Your task to perform on an android device: turn on showing notifications on the lock screen Image 0: 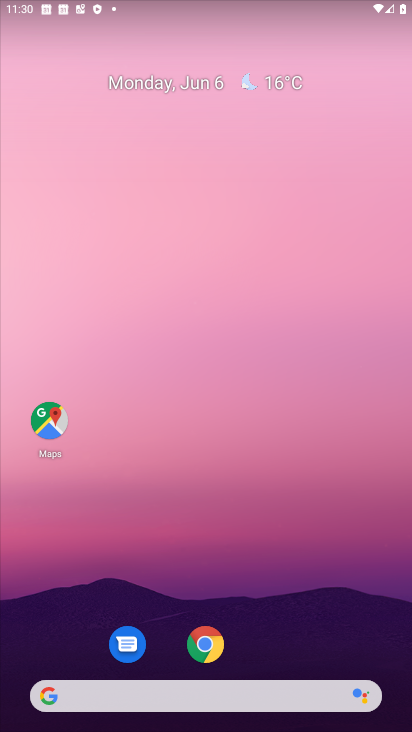
Step 0: drag from (309, 634) to (235, 248)
Your task to perform on an android device: turn on showing notifications on the lock screen Image 1: 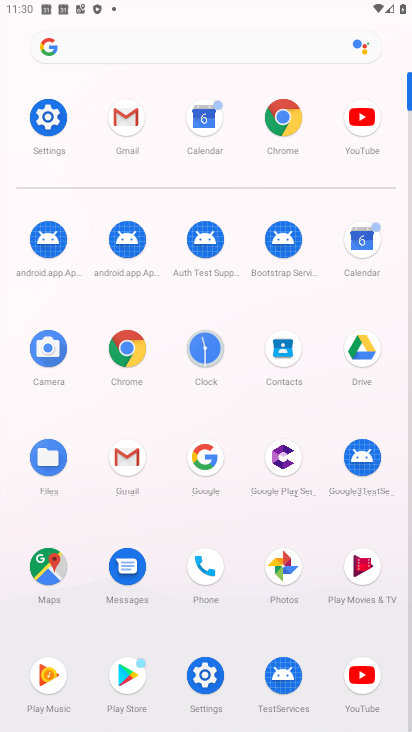
Step 1: click (46, 111)
Your task to perform on an android device: turn on showing notifications on the lock screen Image 2: 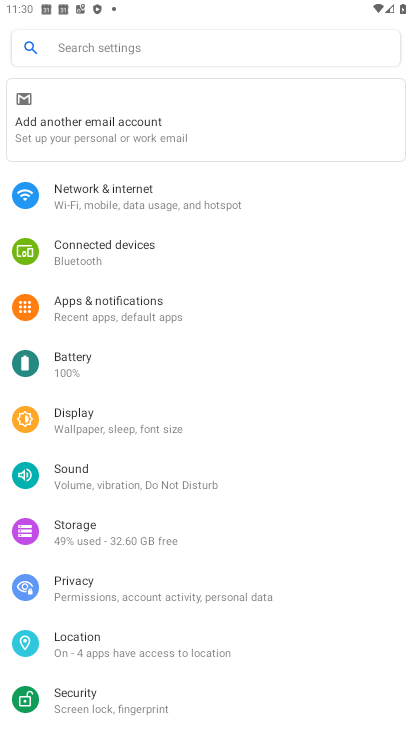
Step 2: click (156, 307)
Your task to perform on an android device: turn on showing notifications on the lock screen Image 3: 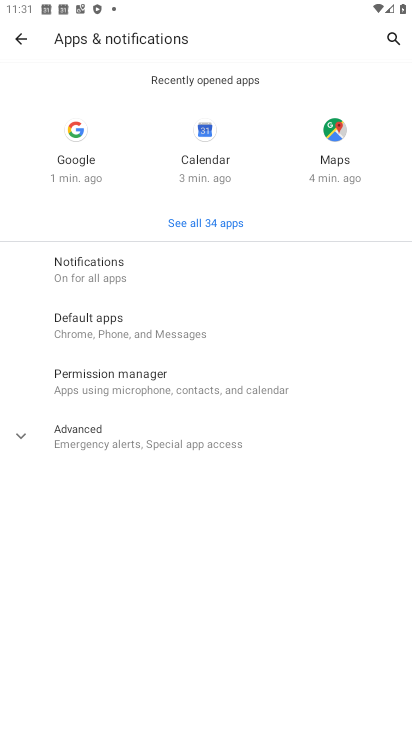
Step 3: click (142, 251)
Your task to perform on an android device: turn on showing notifications on the lock screen Image 4: 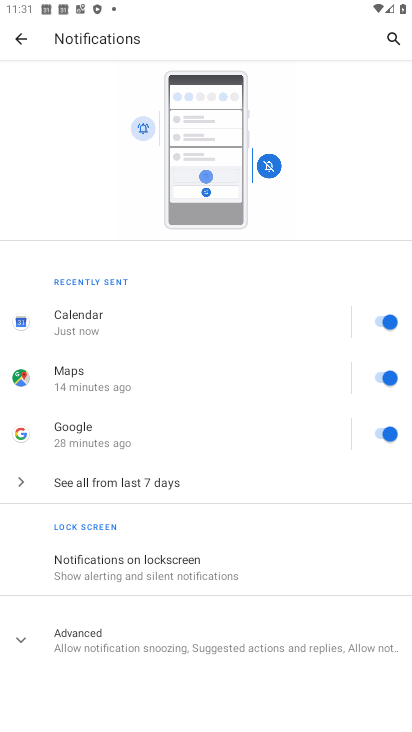
Step 4: click (241, 567)
Your task to perform on an android device: turn on showing notifications on the lock screen Image 5: 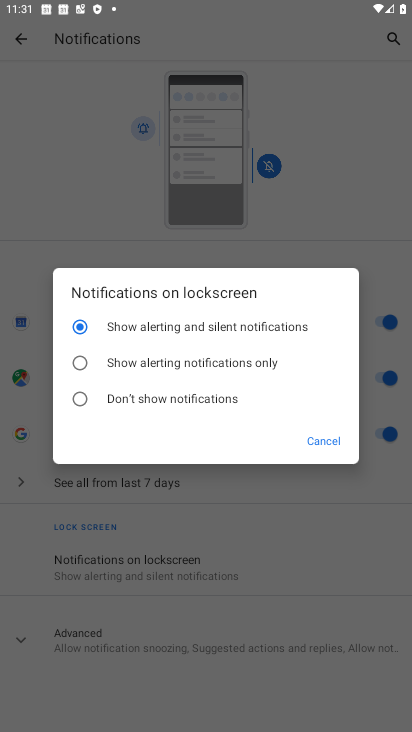
Step 5: task complete